Your task to perform on an android device: Open settings Image 0: 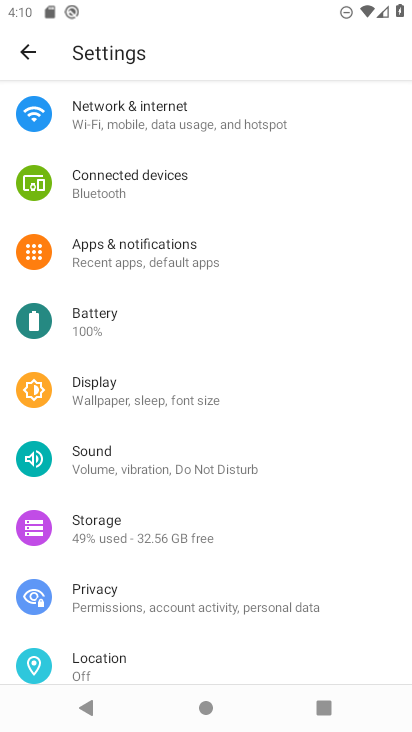
Step 0: press home button
Your task to perform on an android device: Open settings Image 1: 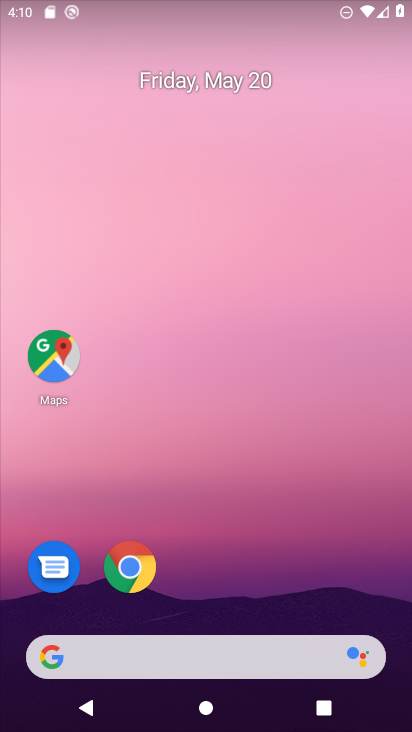
Step 1: drag from (241, 707) to (218, 112)
Your task to perform on an android device: Open settings Image 2: 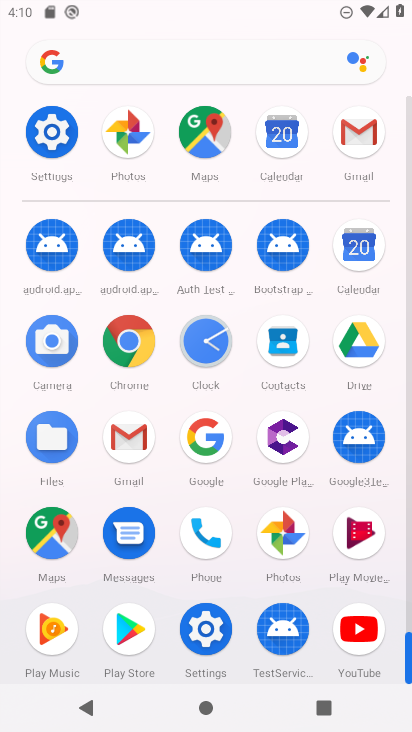
Step 2: click (54, 134)
Your task to perform on an android device: Open settings Image 3: 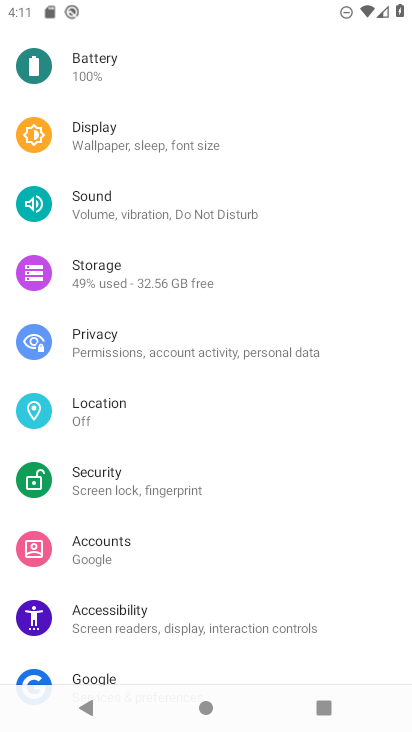
Step 3: task complete